Your task to perform on an android device: change the clock display to digital Image 0: 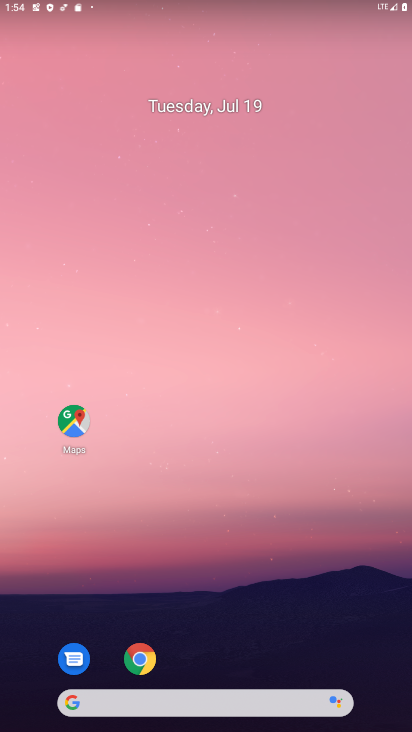
Step 0: press home button
Your task to perform on an android device: change the clock display to digital Image 1: 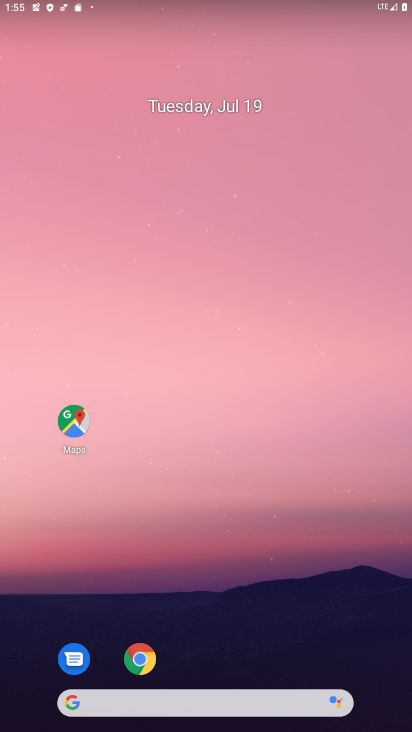
Step 1: drag from (234, 611) to (201, 136)
Your task to perform on an android device: change the clock display to digital Image 2: 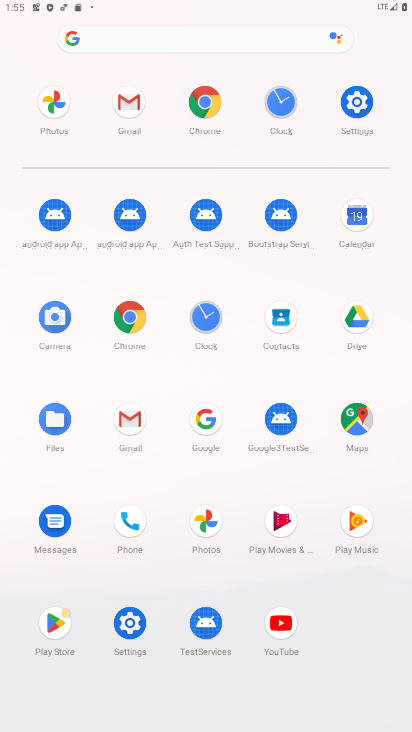
Step 2: click (210, 349)
Your task to perform on an android device: change the clock display to digital Image 3: 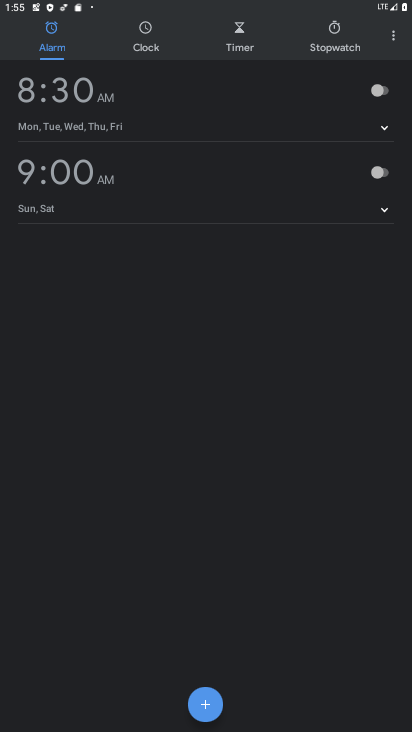
Step 3: click (400, 30)
Your task to perform on an android device: change the clock display to digital Image 4: 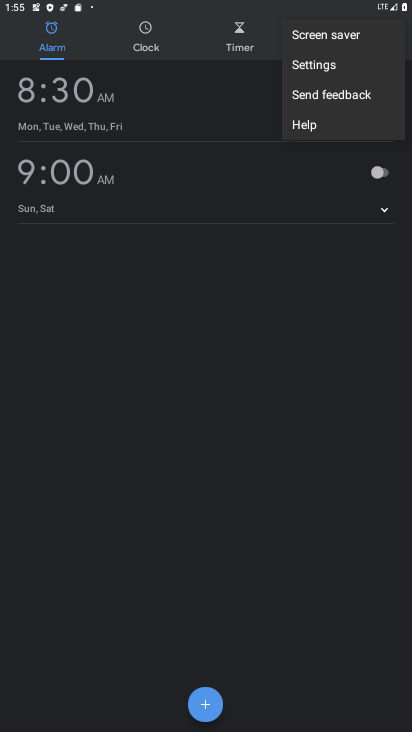
Step 4: click (322, 61)
Your task to perform on an android device: change the clock display to digital Image 5: 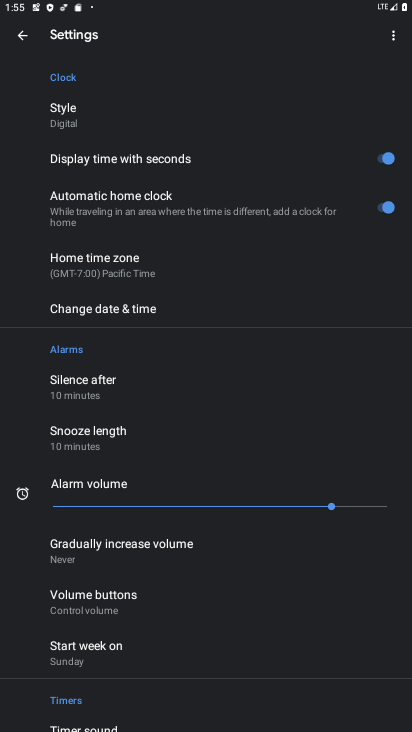
Step 5: click (76, 108)
Your task to perform on an android device: change the clock display to digital Image 6: 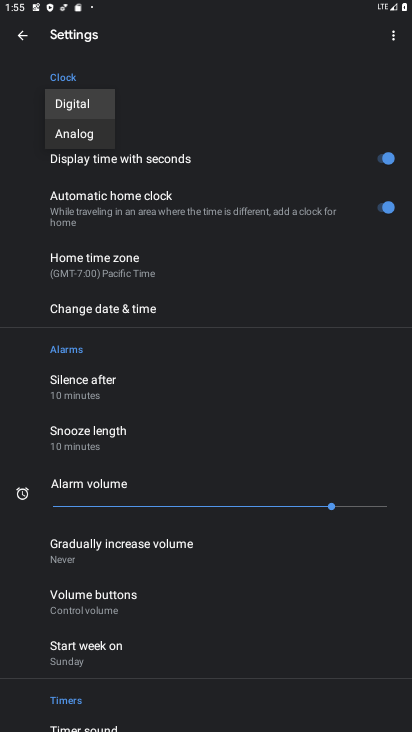
Step 6: click (45, 101)
Your task to perform on an android device: change the clock display to digital Image 7: 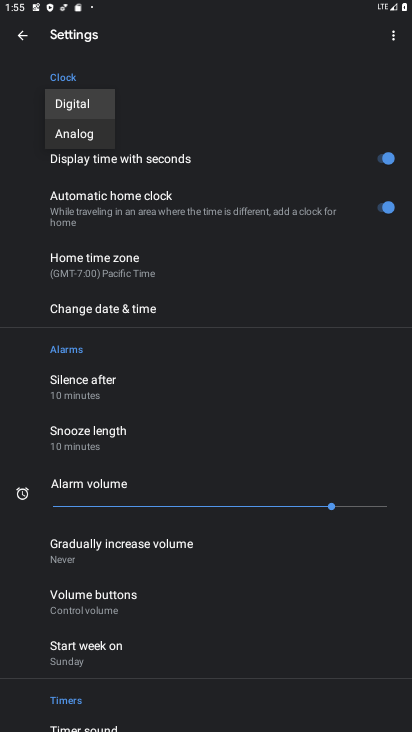
Step 7: click (53, 101)
Your task to perform on an android device: change the clock display to digital Image 8: 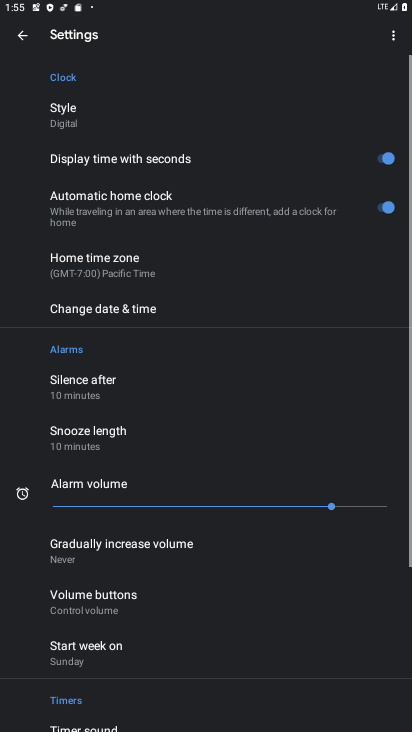
Step 8: task complete